Your task to perform on an android device: Open Google Chrome and open the bookmarks view Image 0: 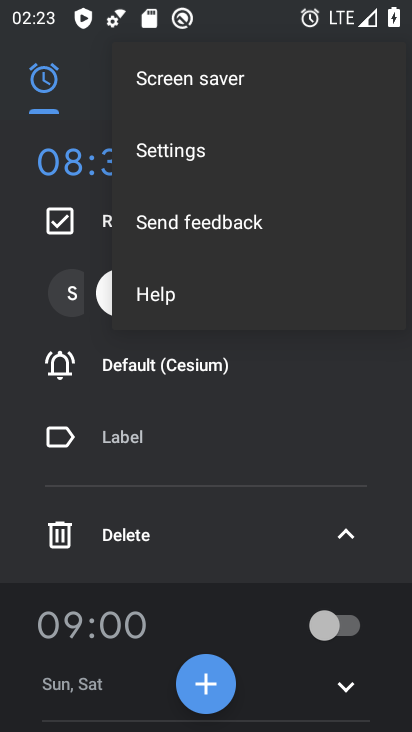
Step 0: press home button
Your task to perform on an android device: Open Google Chrome and open the bookmarks view Image 1: 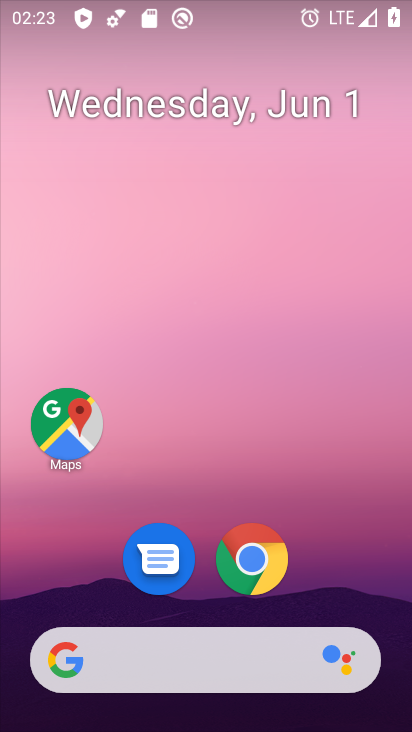
Step 1: click (257, 557)
Your task to perform on an android device: Open Google Chrome and open the bookmarks view Image 2: 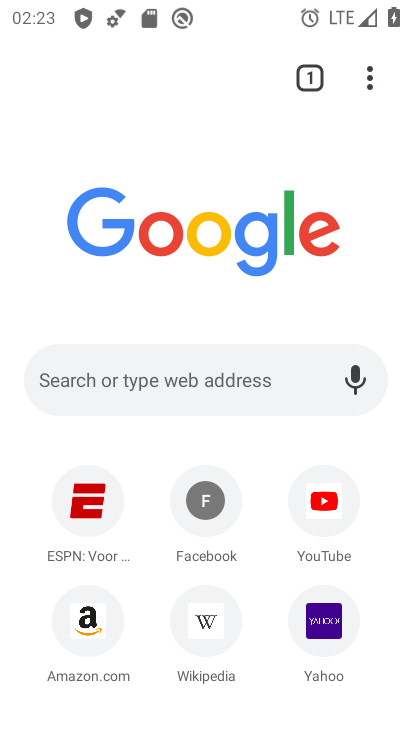
Step 2: task complete